Your task to perform on an android device: change the clock style Image 0: 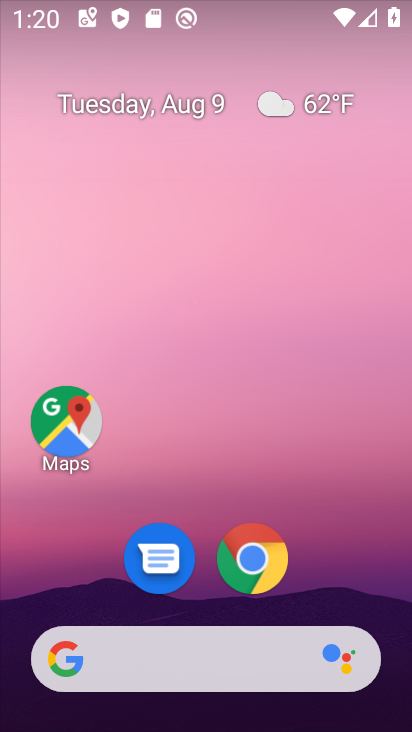
Step 0: drag from (365, 596) to (360, 103)
Your task to perform on an android device: change the clock style Image 1: 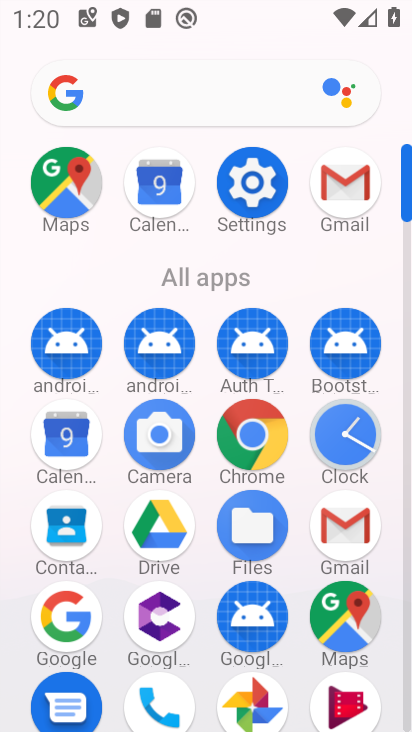
Step 1: click (367, 441)
Your task to perform on an android device: change the clock style Image 2: 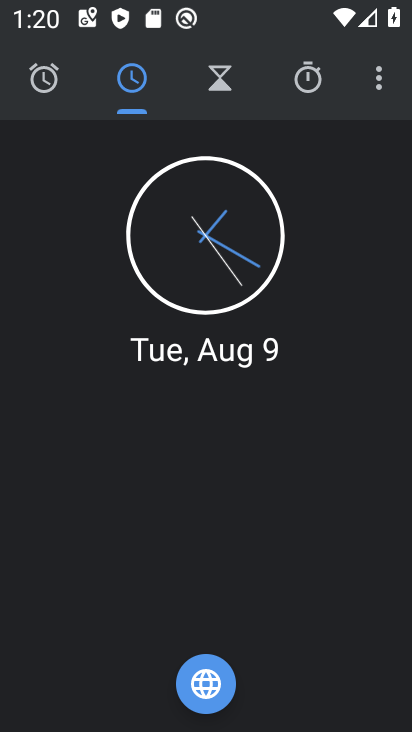
Step 2: click (379, 92)
Your task to perform on an android device: change the clock style Image 3: 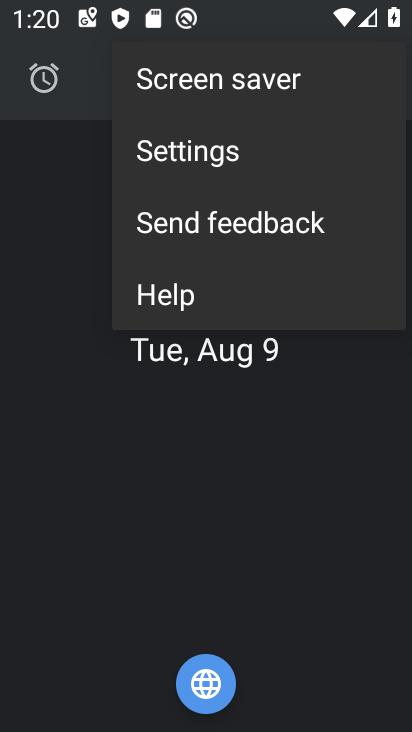
Step 3: click (253, 153)
Your task to perform on an android device: change the clock style Image 4: 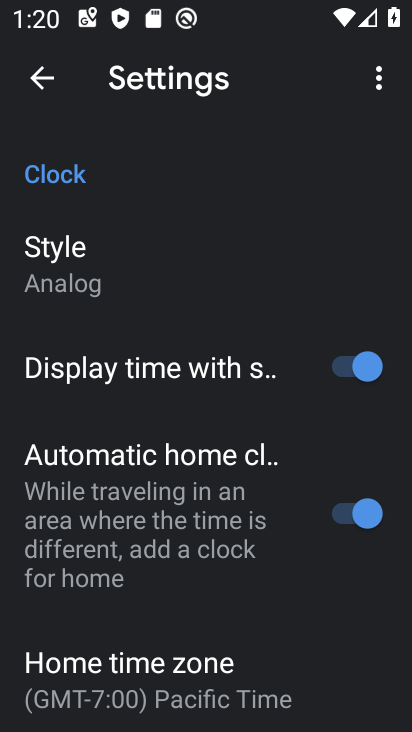
Step 4: click (117, 267)
Your task to perform on an android device: change the clock style Image 5: 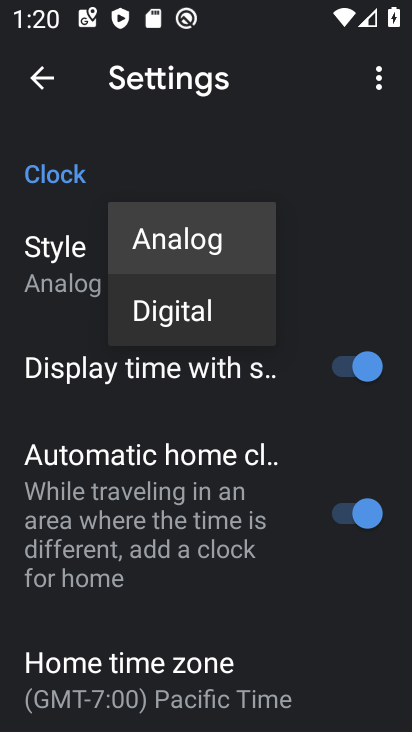
Step 5: click (165, 312)
Your task to perform on an android device: change the clock style Image 6: 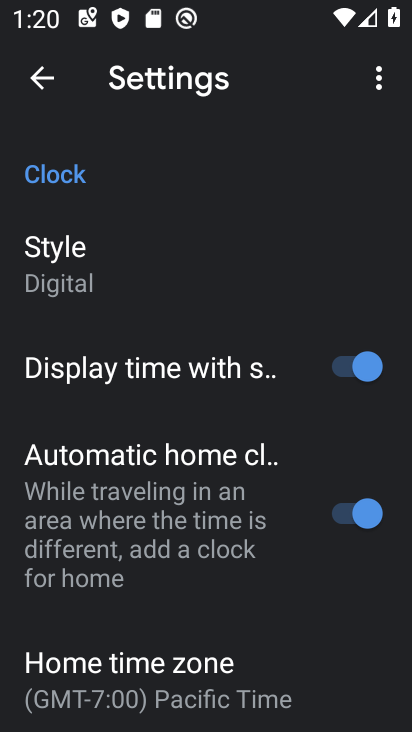
Step 6: task complete